Your task to perform on an android device: delete the emails in spam in the gmail app Image 0: 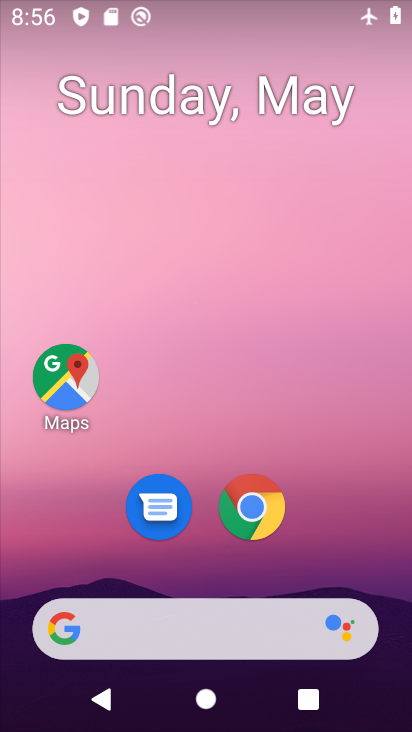
Step 0: drag from (208, 567) to (250, 14)
Your task to perform on an android device: delete the emails in spam in the gmail app Image 1: 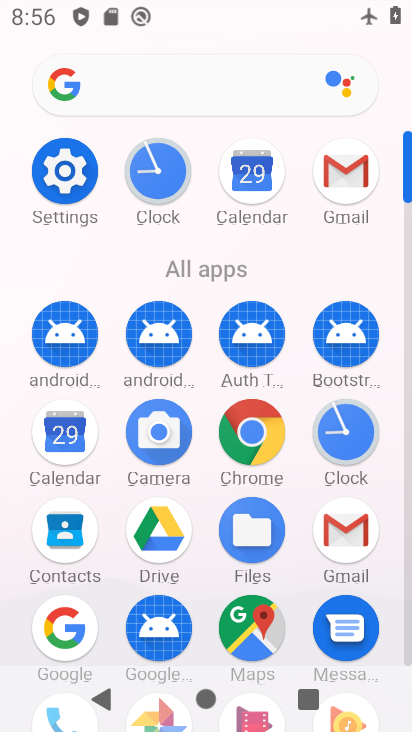
Step 1: click (345, 537)
Your task to perform on an android device: delete the emails in spam in the gmail app Image 2: 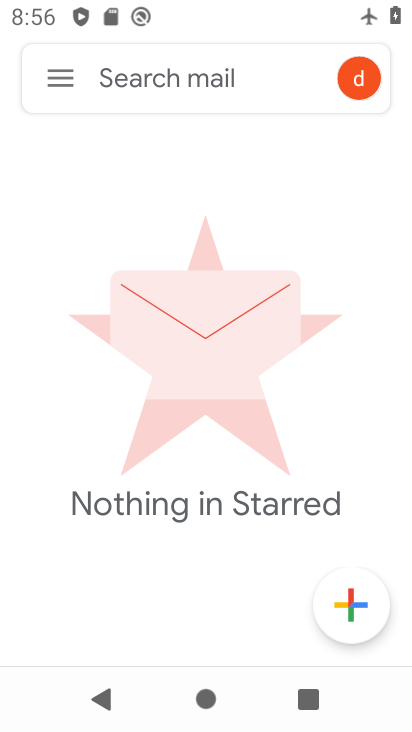
Step 2: click (60, 66)
Your task to perform on an android device: delete the emails in spam in the gmail app Image 3: 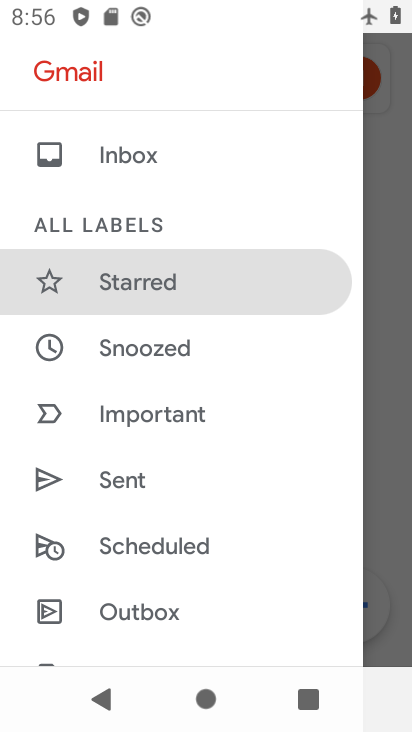
Step 3: drag from (136, 588) to (176, 377)
Your task to perform on an android device: delete the emails in spam in the gmail app Image 4: 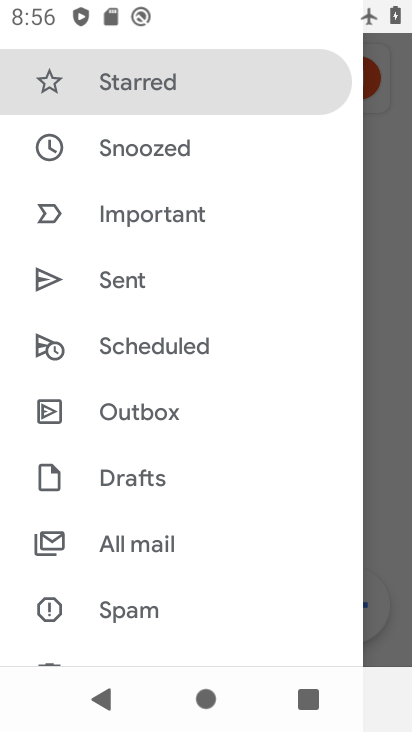
Step 4: click (131, 609)
Your task to perform on an android device: delete the emails in spam in the gmail app Image 5: 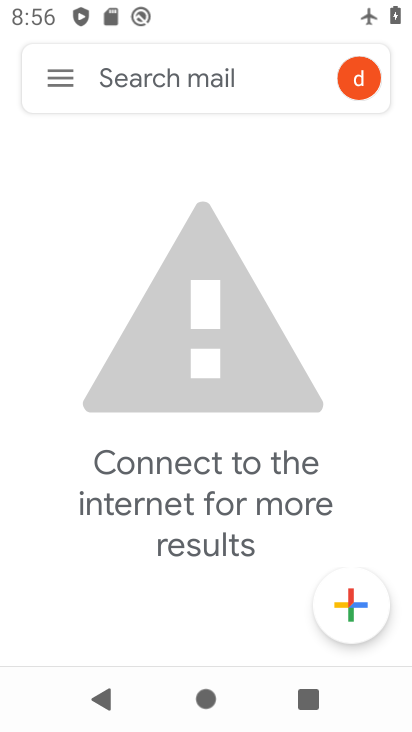
Step 5: task complete